Your task to perform on an android device: open device folders in google photos Image 0: 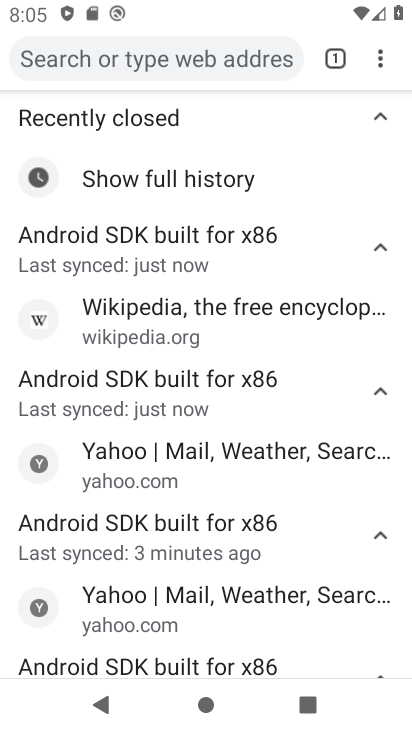
Step 0: press back button
Your task to perform on an android device: open device folders in google photos Image 1: 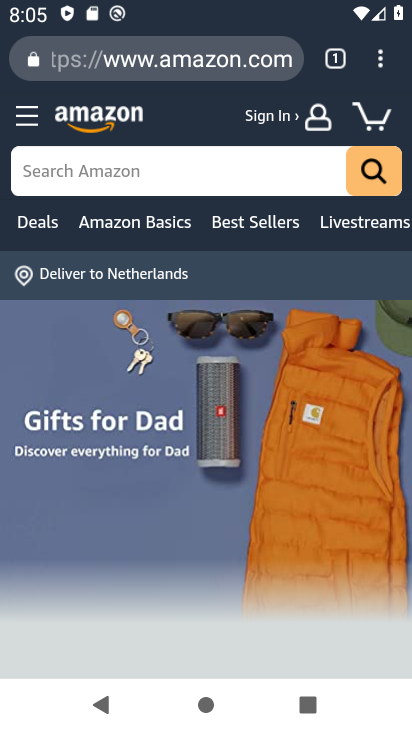
Step 1: press home button
Your task to perform on an android device: open device folders in google photos Image 2: 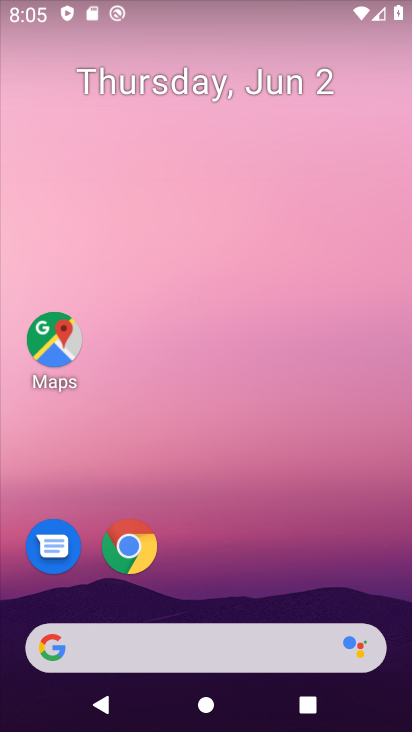
Step 2: drag from (206, 416) to (190, 299)
Your task to perform on an android device: open device folders in google photos Image 3: 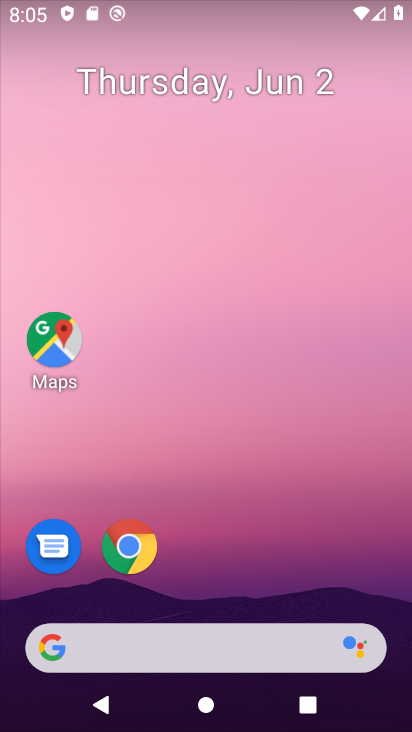
Step 3: drag from (278, 710) to (194, 122)
Your task to perform on an android device: open device folders in google photos Image 4: 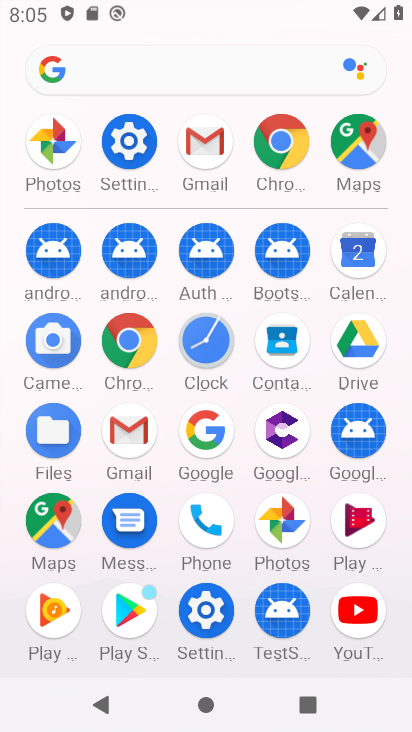
Step 4: drag from (226, 614) to (168, 216)
Your task to perform on an android device: open device folders in google photos Image 5: 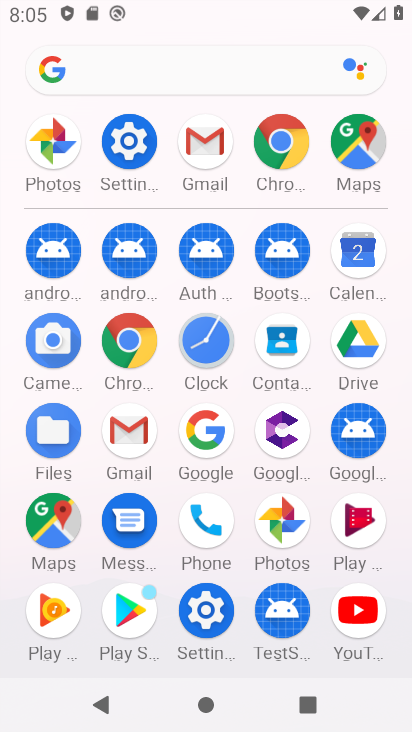
Step 5: click (275, 523)
Your task to perform on an android device: open device folders in google photos Image 6: 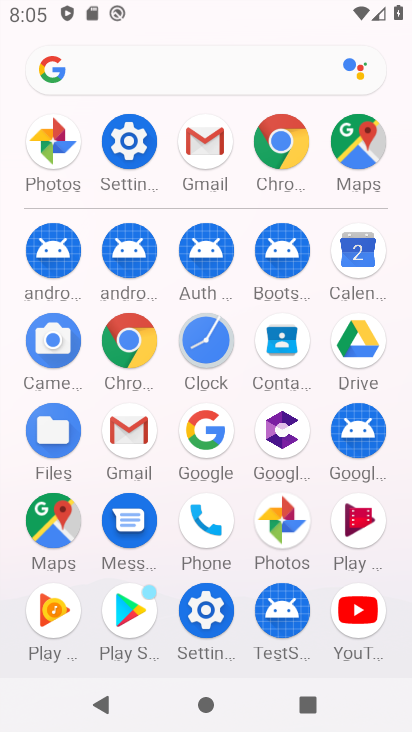
Step 6: click (275, 521)
Your task to perform on an android device: open device folders in google photos Image 7: 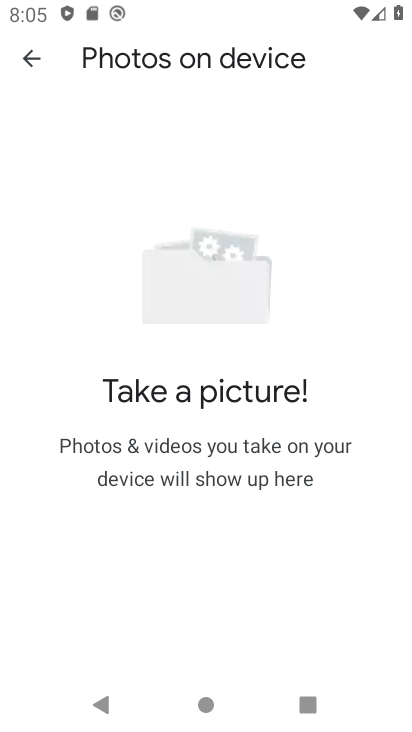
Step 7: click (27, 61)
Your task to perform on an android device: open device folders in google photos Image 8: 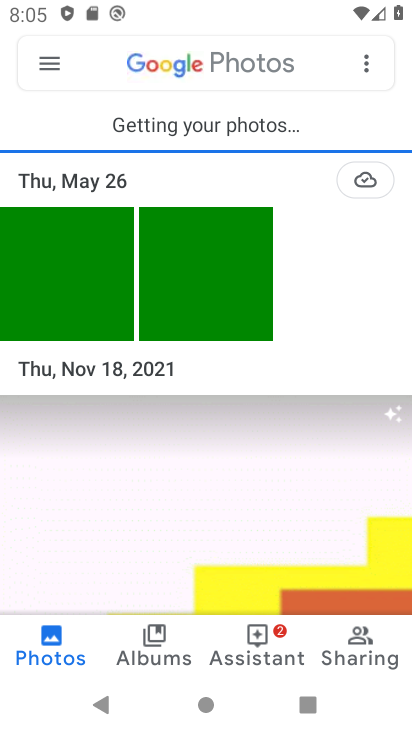
Step 8: drag from (48, 63) to (99, 320)
Your task to perform on an android device: open device folders in google photos Image 9: 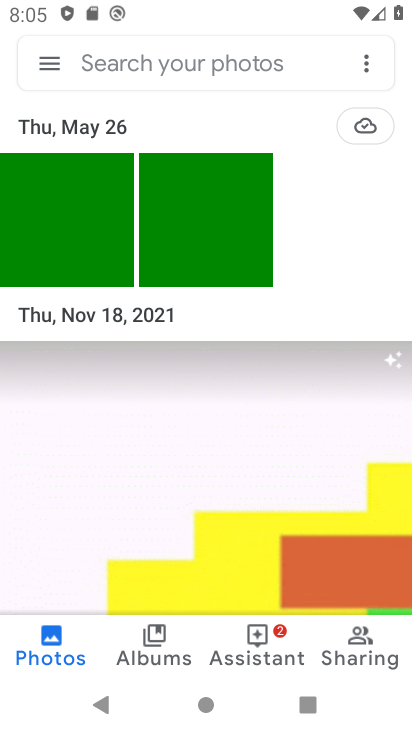
Step 9: click (48, 72)
Your task to perform on an android device: open device folders in google photos Image 10: 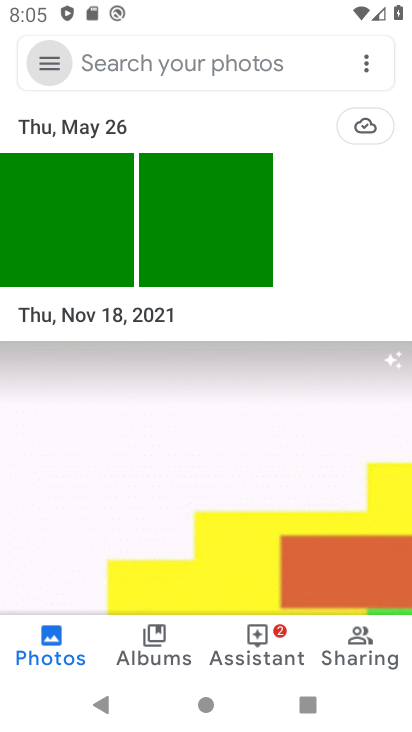
Step 10: click (48, 72)
Your task to perform on an android device: open device folders in google photos Image 11: 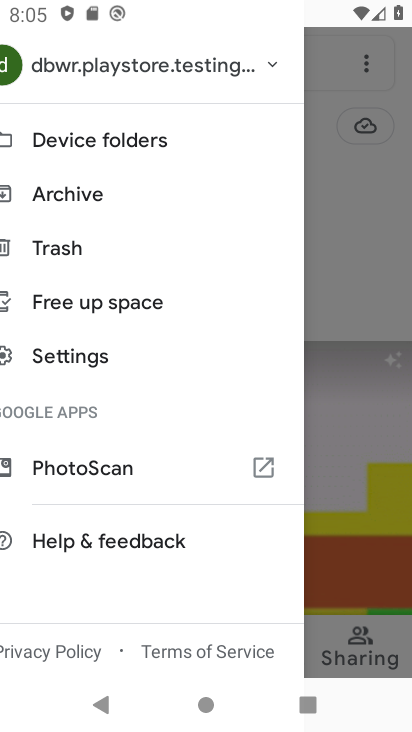
Step 11: click (48, 72)
Your task to perform on an android device: open device folders in google photos Image 12: 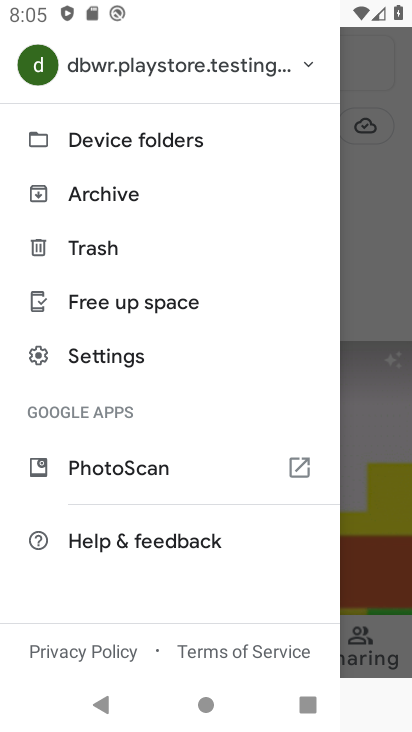
Step 12: click (123, 151)
Your task to perform on an android device: open device folders in google photos Image 13: 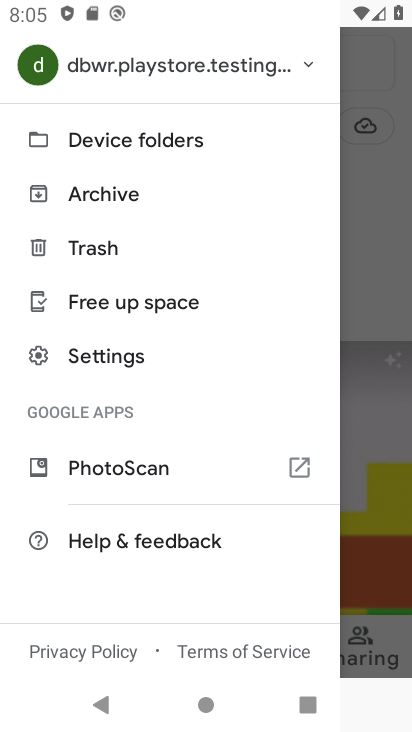
Step 13: click (120, 135)
Your task to perform on an android device: open device folders in google photos Image 14: 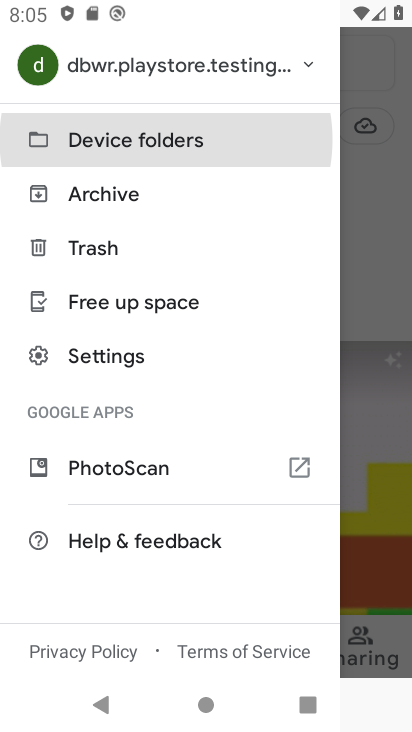
Step 14: click (120, 135)
Your task to perform on an android device: open device folders in google photos Image 15: 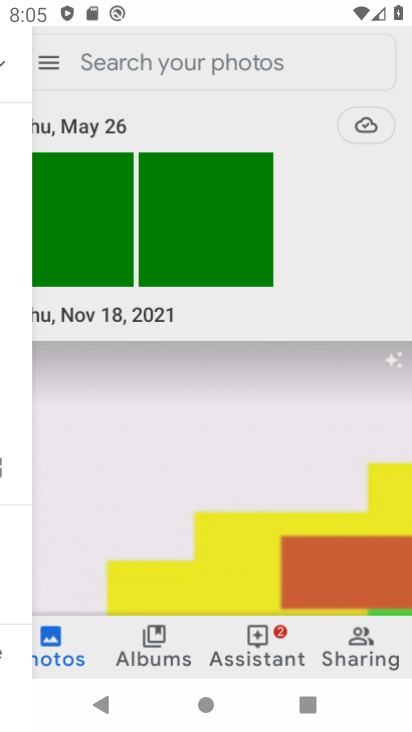
Step 15: click (121, 132)
Your task to perform on an android device: open device folders in google photos Image 16: 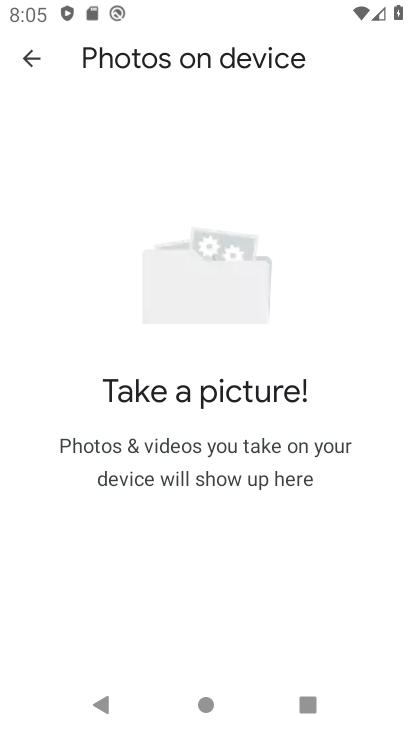
Step 16: task complete